Your task to perform on an android device: Check the weather Image 0: 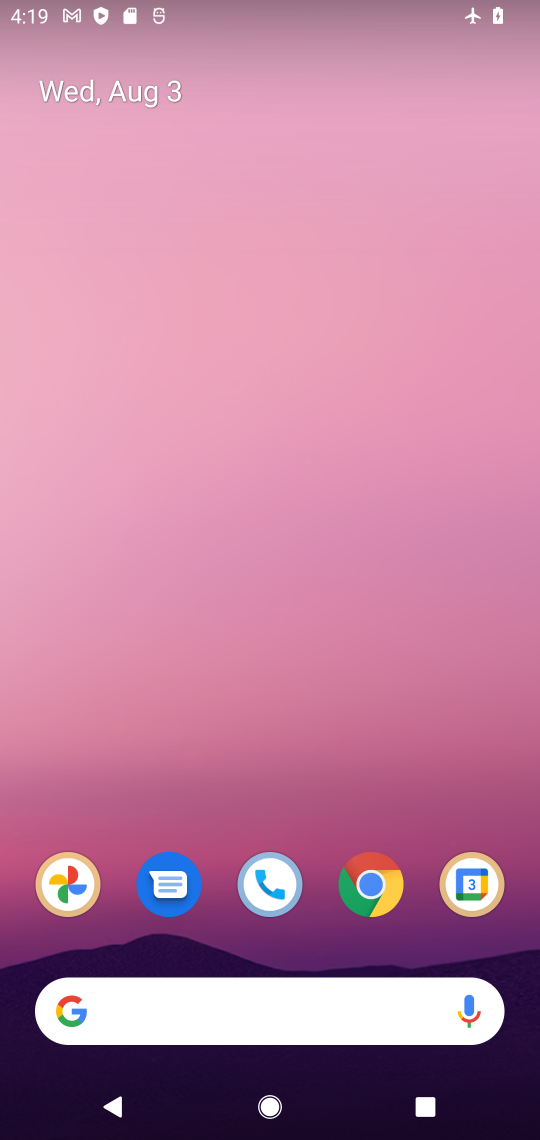
Step 0: drag from (330, 900) to (424, 25)
Your task to perform on an android device: Check the weather Image 1: 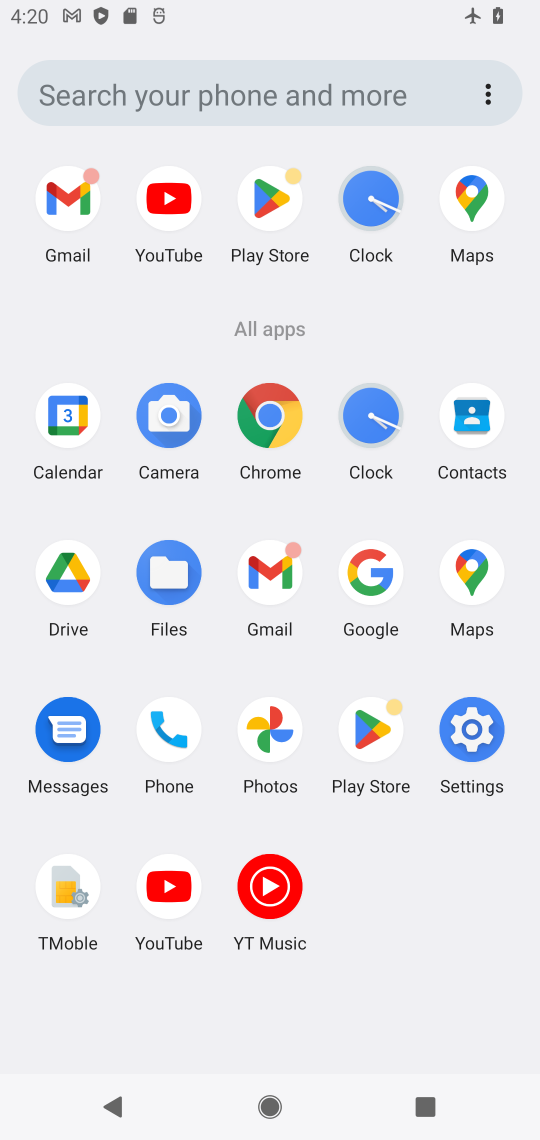
Step 1: click (373, 583)
Your task to perform on an android device: Check the weather Image 2: 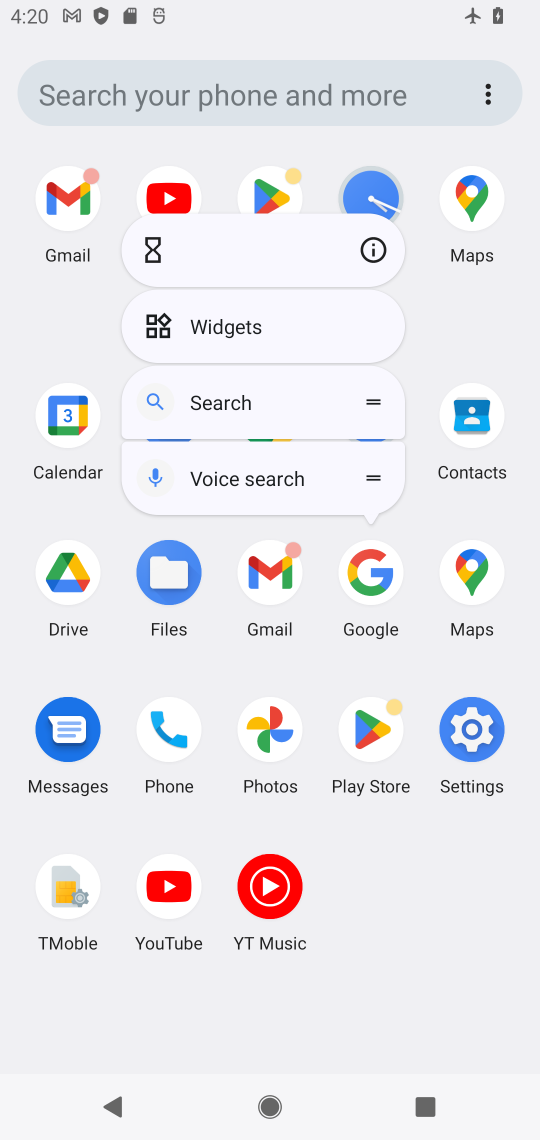
Step 2: click (360, 588)
Your task to perform on an android device: Check the weather Image 3: 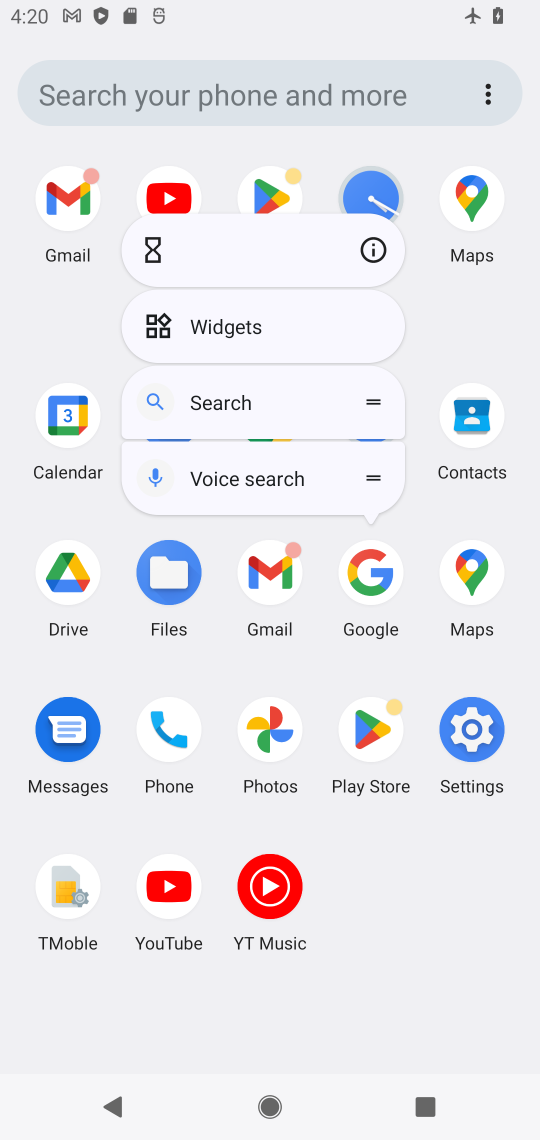
Step 3: click (360, 584)
Your task to perform on an android device: Check the weather Image 4: 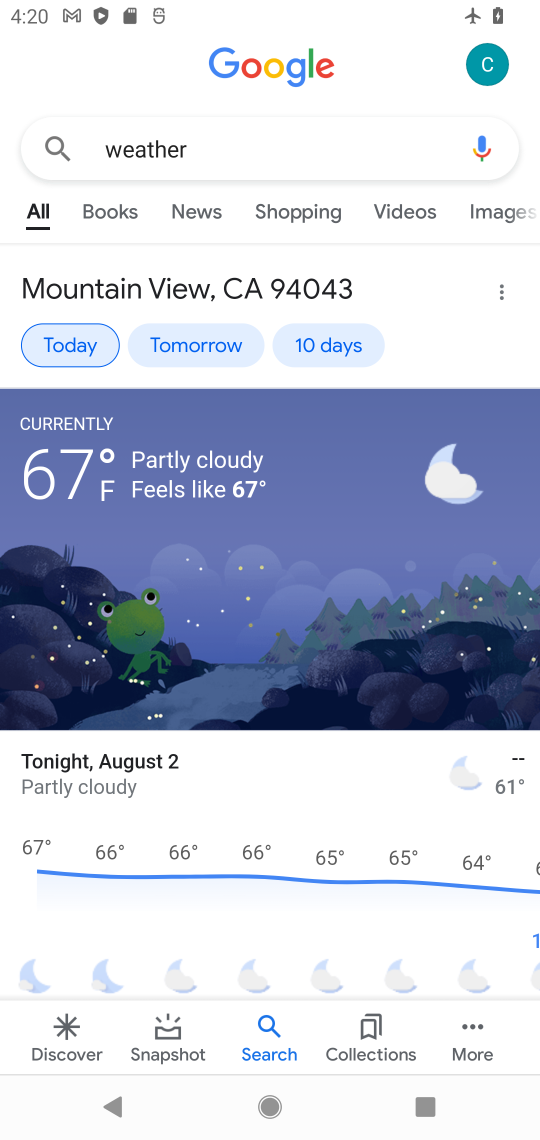
Step 4: task complete